Your task to perform on an android device: turn vacation reply on in the gmail app Image 0: 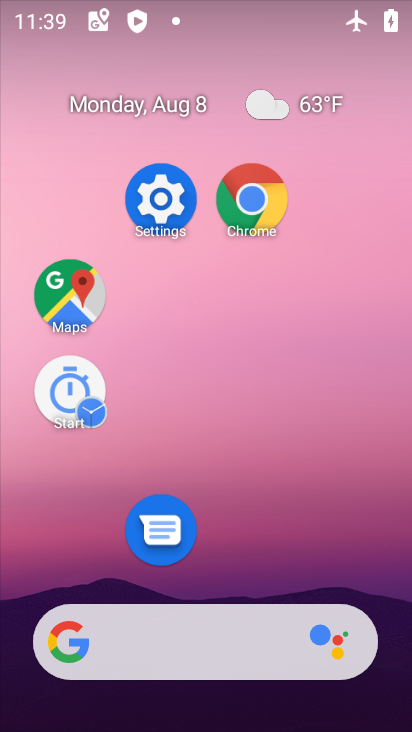
Step 0: drag from (183, 630) to (156, 148)
Your task to perform on an android device: turn vacation reply on in the gmail app Image 1: 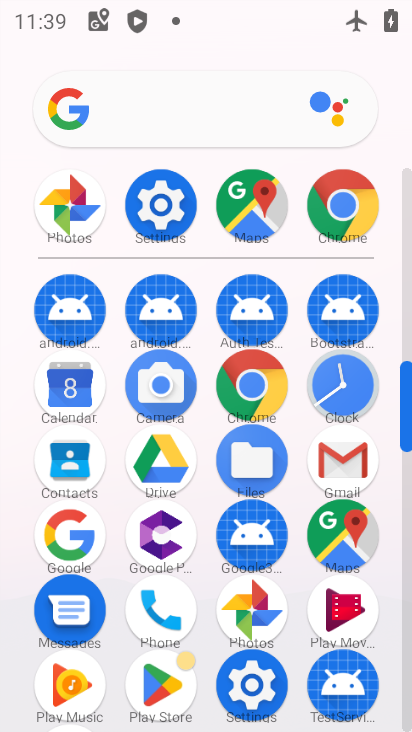
Step 1: click (325, 460)
Your task to perform on an android device: turn vacation reply on in the gmail app Image 2: 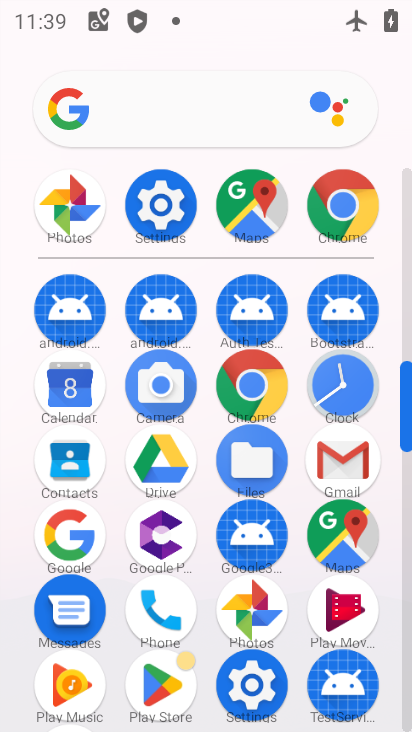
Step 2: click (327, 461)
Your task to perform on an android device: turn vacation reply on in the gmail app Image 3: 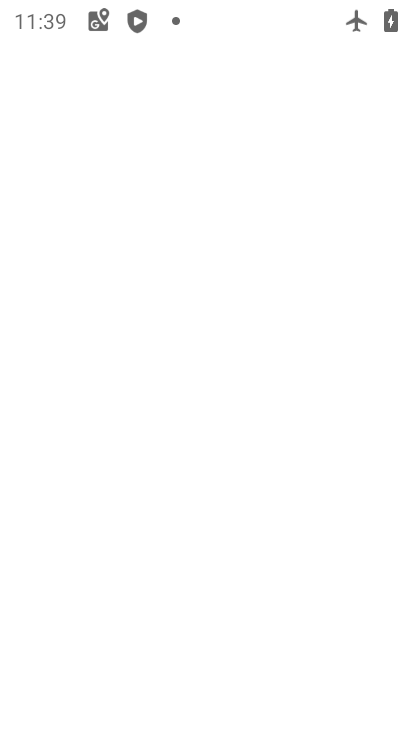
Step 3: click (338, 461)
Your task to perform on an android device: turn vacation reply on in the gmail app Image 4: 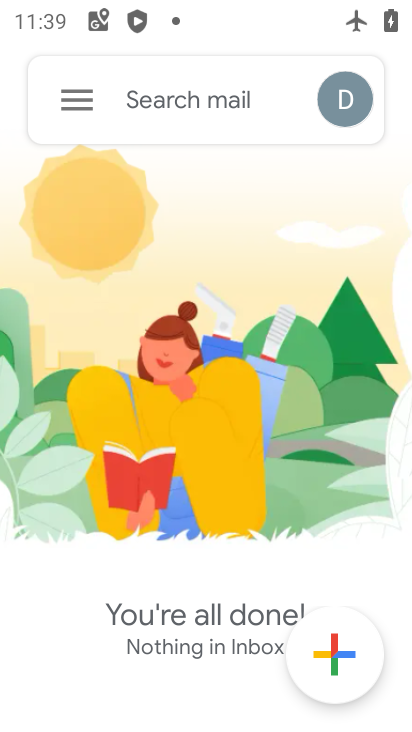
Step 4: click (78, 115)
Your task to perform on an android device: turn vacation reply on in the gmail app Image 5: 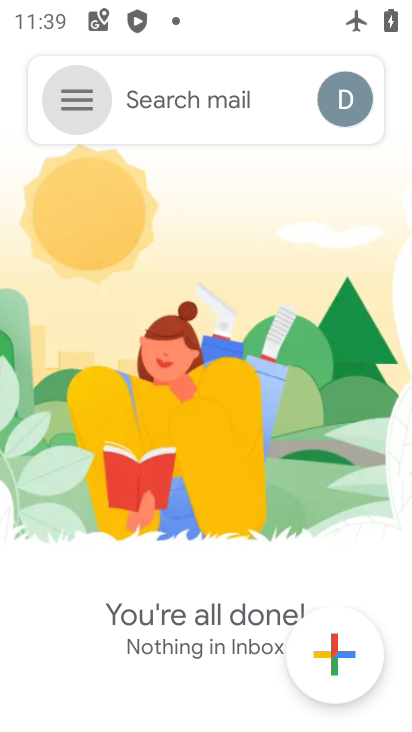
Step 5: click (79, 113)
Your task to perform on an android device: turn vacation reply on in the gmail app Image 6: 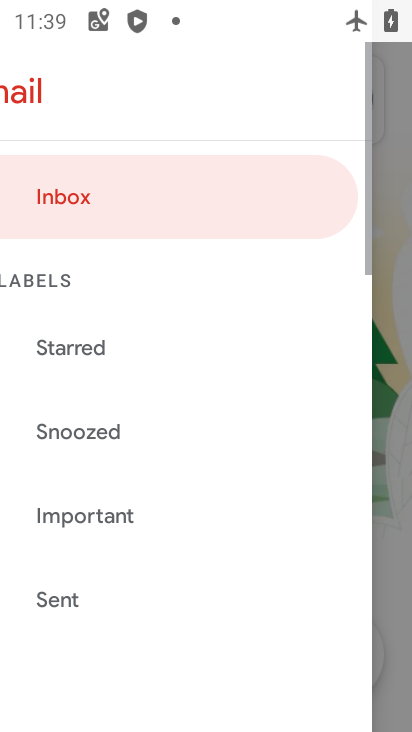
Step 6: click (81, 115)
Your task to perform on an android device: turn vacation reply on in the gmail app Image 7: 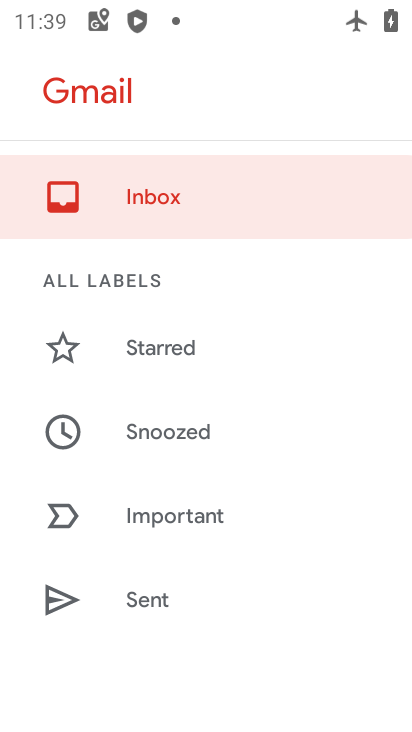
Step 7: drag from (132, 577) to (131, 101)
Your task to perform on an android device: turn vacation reply on in the gmail app Image 8: 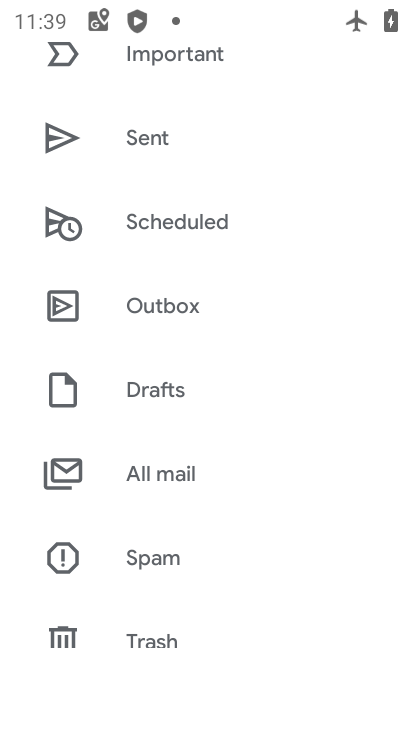
Step 8: drag from (195, 516) to (167, 117)
Your task to perform on an android device: turn vacation reply on in the gmail app Image 9: 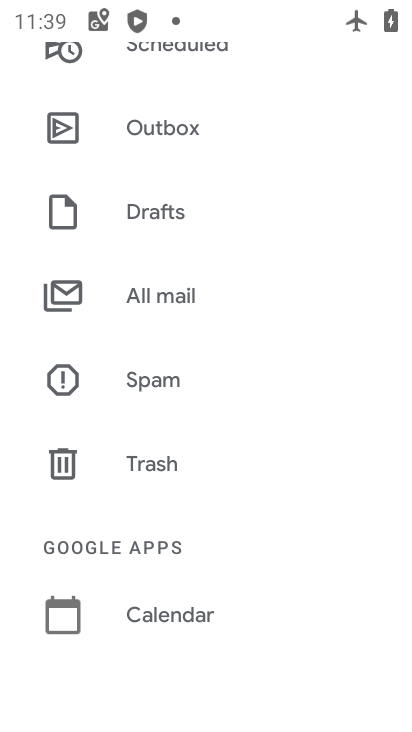
Step 9: drag from (232, 530) to (229, 122)
Your task to perform on an android device: turn vacation reply on in the gmail app Image 10: 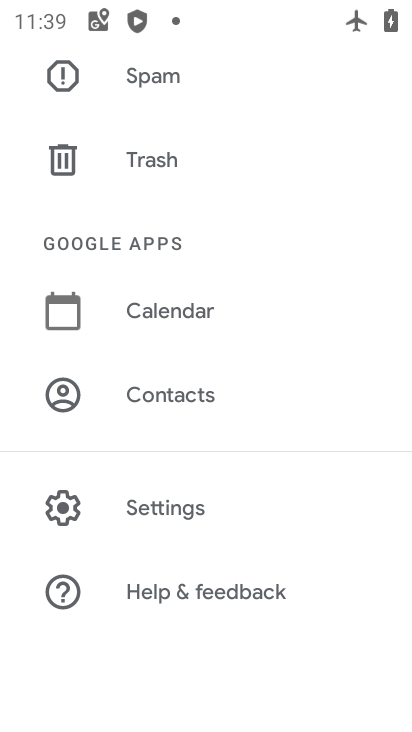
Step 10: click (159, 510)
Your task to perform on an android device: turn vacation reply on in the gmail app Image 11: 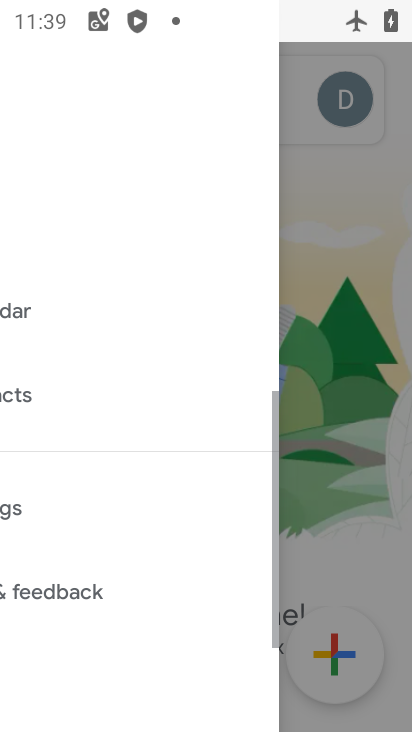
Step 11: click (159, 510)
Your task to perform on an android device: turn vacation reply on in the gmail app Image 12: 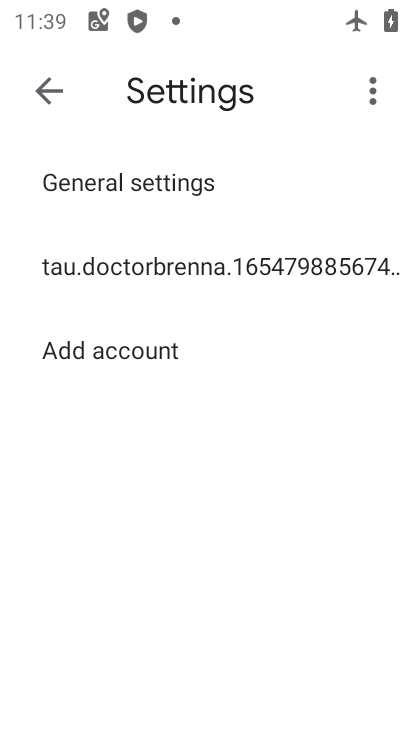
Step 12: click (134, 274)
Your task to perform on an android device: turn vacation reply on in the gmail app Image 13: 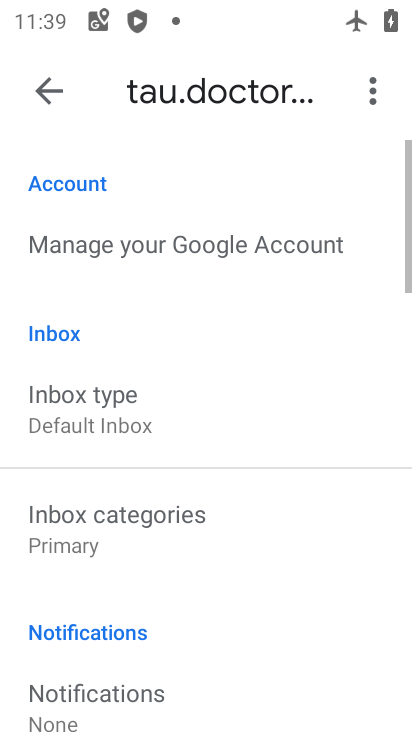
Step 13: drag from (156, 557) to (136, 242)
Your task to perform on an android device: turn vacation reply on in the gmail app Image 14: 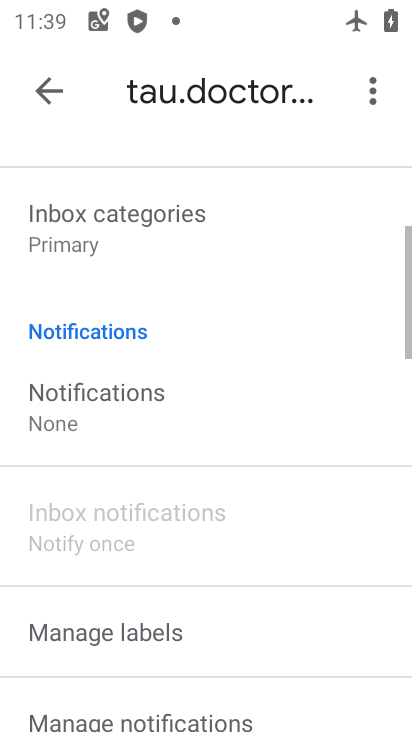
Step 14: drag from (149, 591) to (168, 151)
Your task to perform on an android device: turn vacation reply on in the gmail app Image 15: 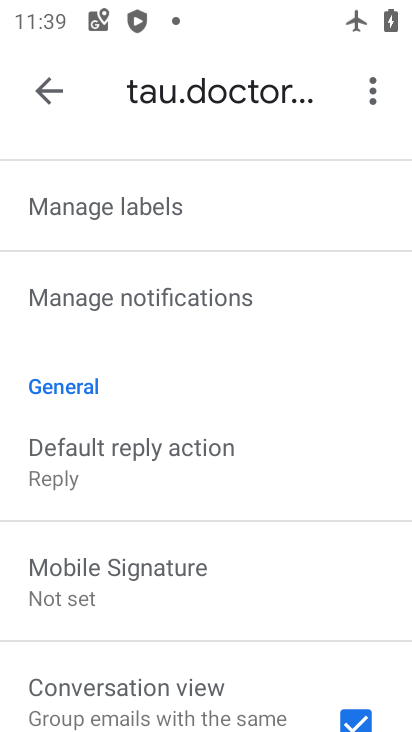
Step 15: drag from (112, 617) to (112, 367)
Your task to perform on an android device: turn vacation reply on in the gmail app Image 16: 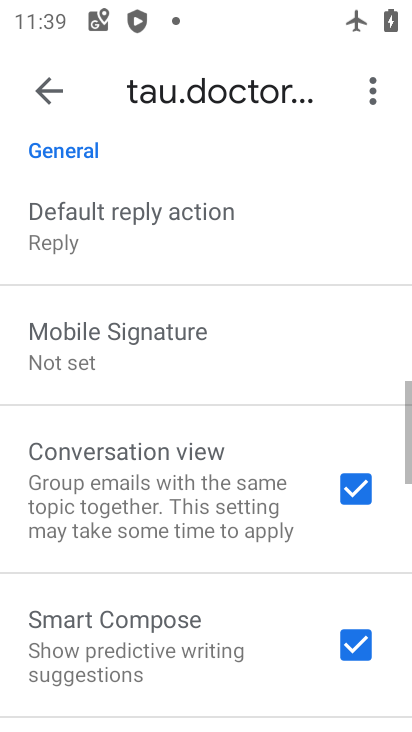
Step 16: drag from (206, 508) to (222, 347)
Your task to perform on an android device: turn vacation reply on in the gmail app Image 17: 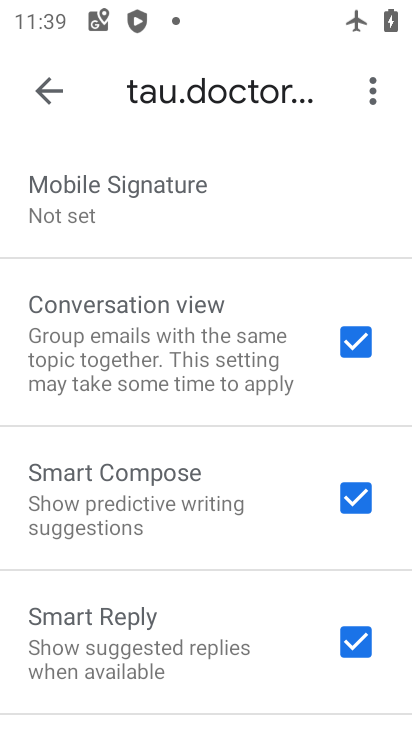
Step 17: drag from (126, 343) to (157, 618)
Your task to perform on an android device: turn vacation reply on in the gmail app Image 18: 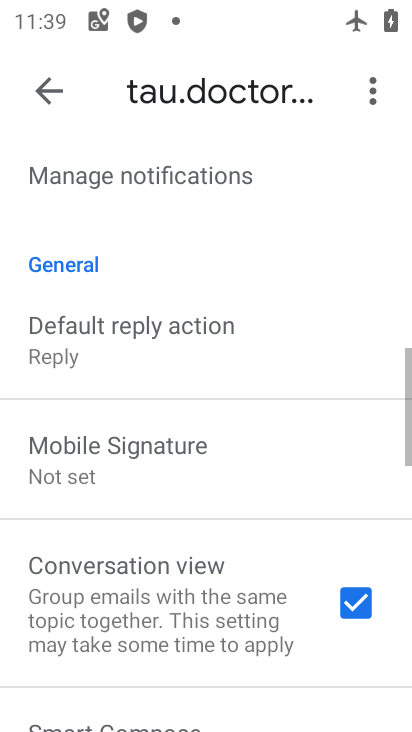
Step 18: drag from (103, 358) to (131, 569)
Your task to perform on an android device: turn vacation reply on in the gmail app Image 19: 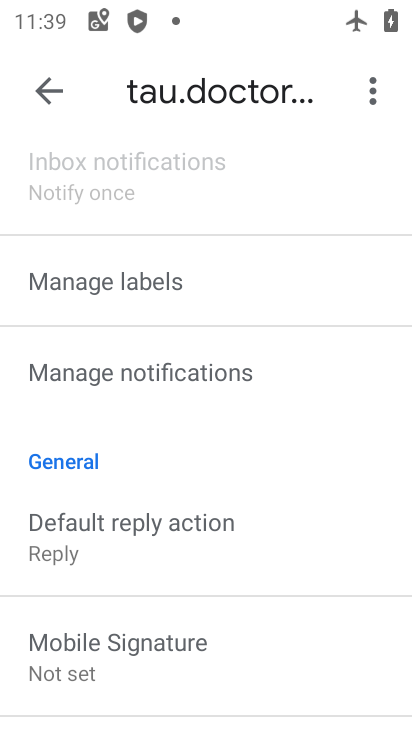
Step 19: drag from (154, 605) to (113, 371)
Your task to perform on an android device: turn vacation reply on in the gmail app Image 20: 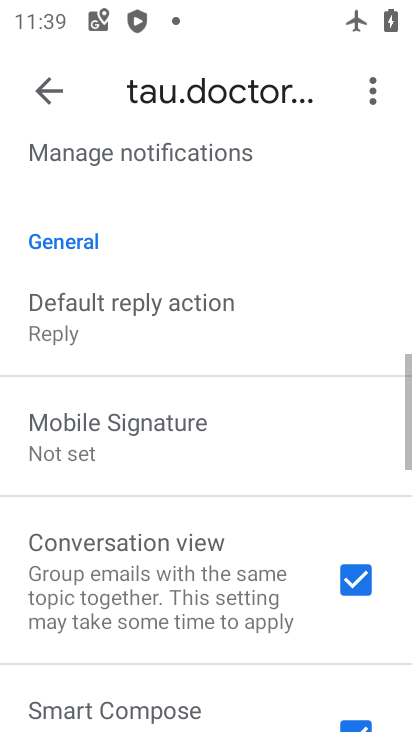
Step 20: drag from (164, 522) to (161, 286)
Your task to perform on an android device: turn vacation reply on in the gmail app Image 21: 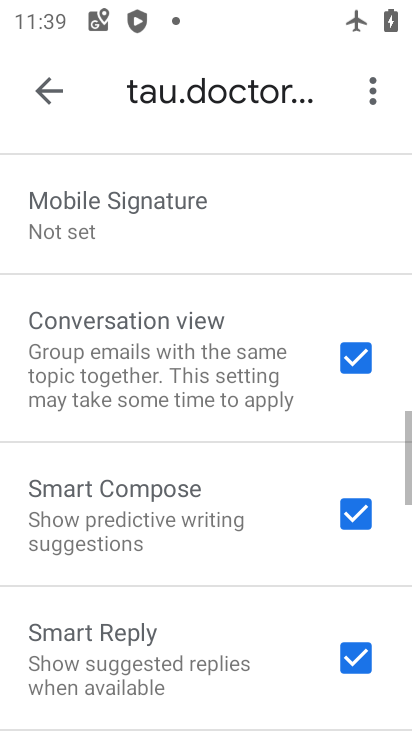
Step 21: drag from (164, 547) to (149, 219)
Your task to perform on an android device: turn vacation reply on in the gmail app Image 22: 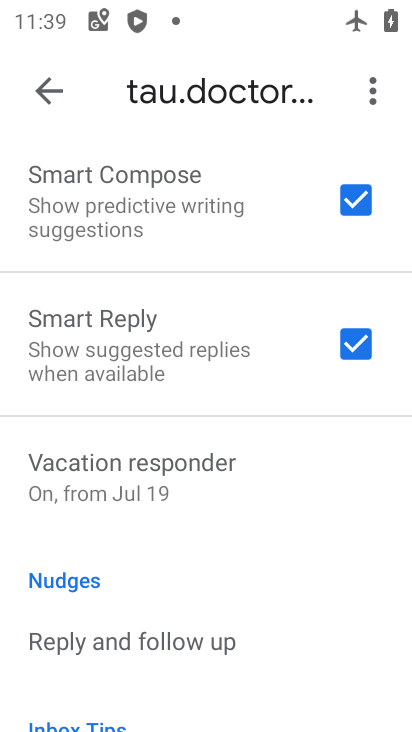
Step 22: click (147, 478)
Your task to perform on an android device: turn vacation reply on in the gmail app Image 23: 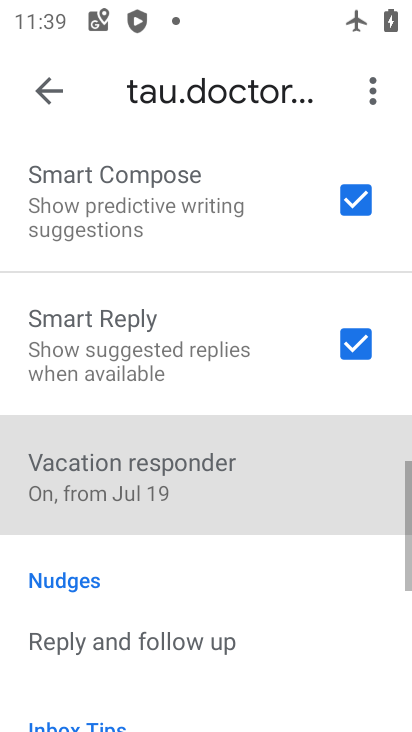
Step 23: click (147, 478)
Your task to perform on an android device: turn vacation reply on in the gmail app Image 24: 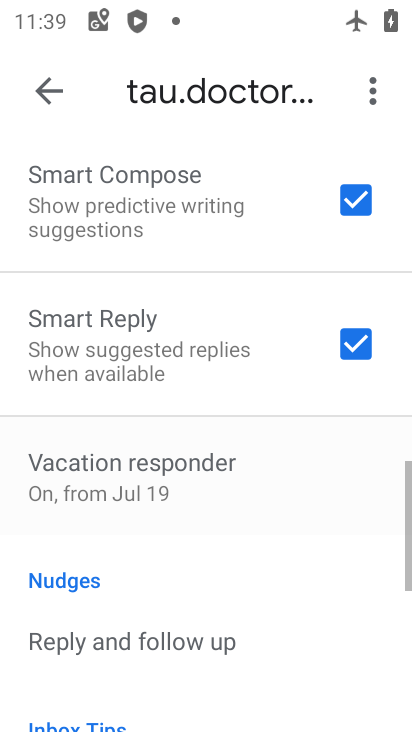
Step 24: click (147, 478)
Your task to perform on an android device: turn vacation reply on in the gmail app Image 25: 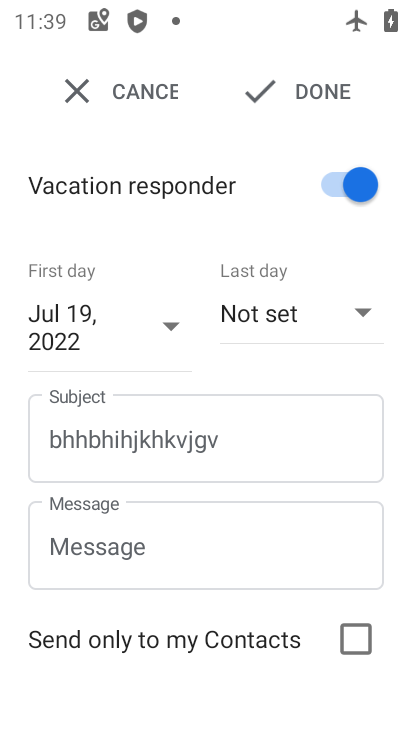
Step 25: task complete